Your task to perform on an android device: move an email to a new category in the gmail app Image 0: 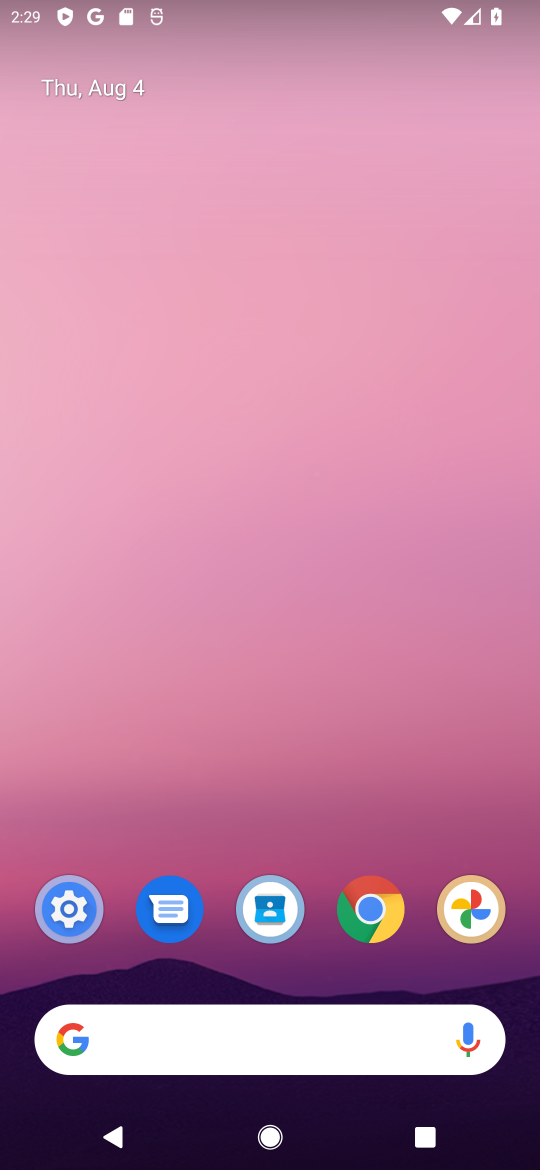
Step 0: drag from (259, 1012) to (460, 36)
Your task to perform on an android device: move an email to a new category in the gmail app Image 1: 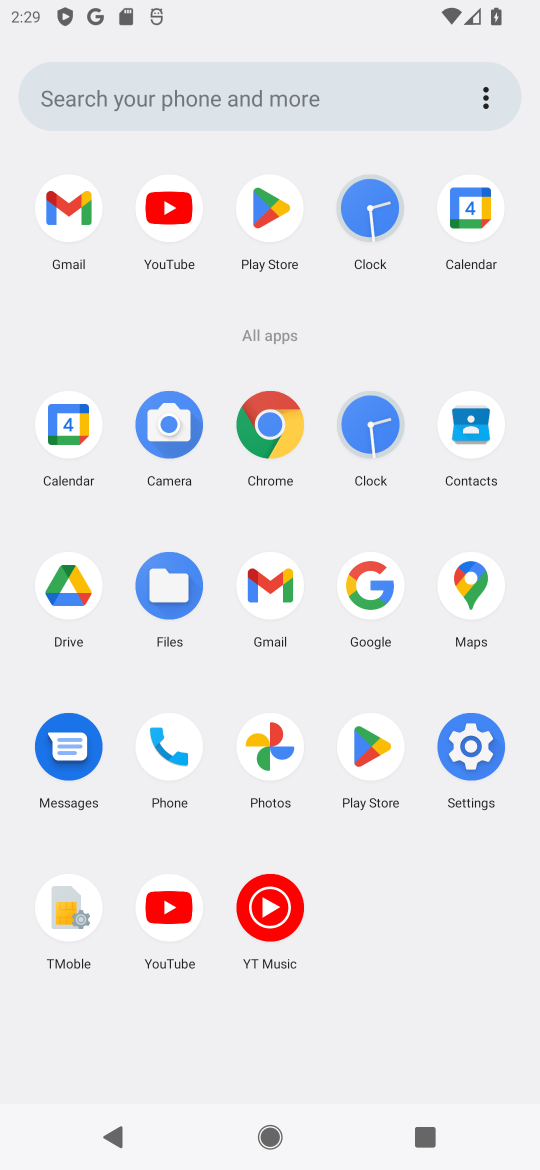
Step 1: click (69, 206)
Your task to perform on an android device: move an email to a new category in the gmail app Image 2: 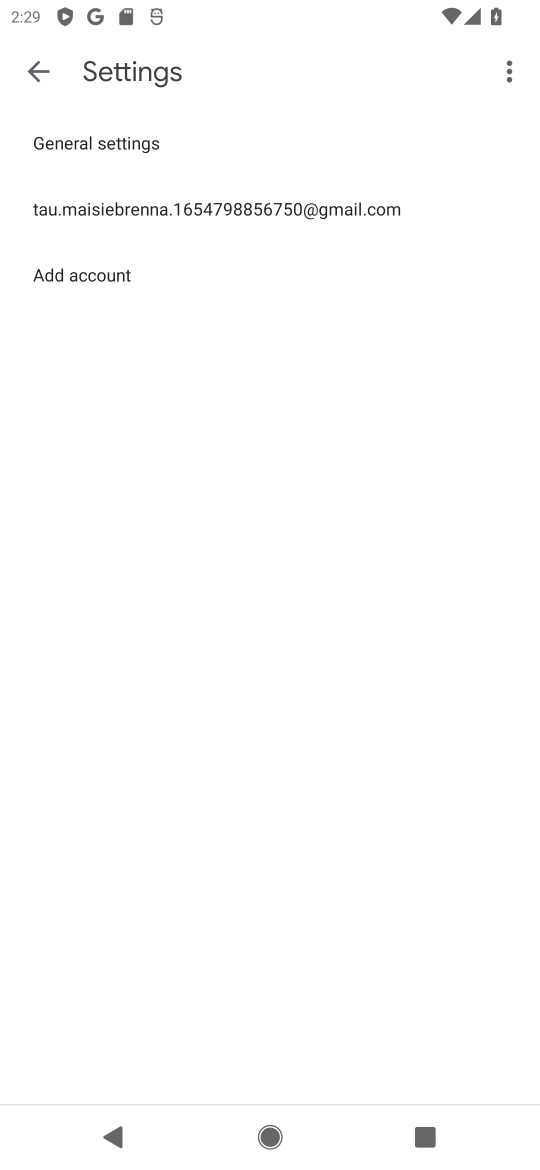
Step 2: click (38, 61)
Your task to perform on an android device: move an email to a new category in the gmail app Image 3: 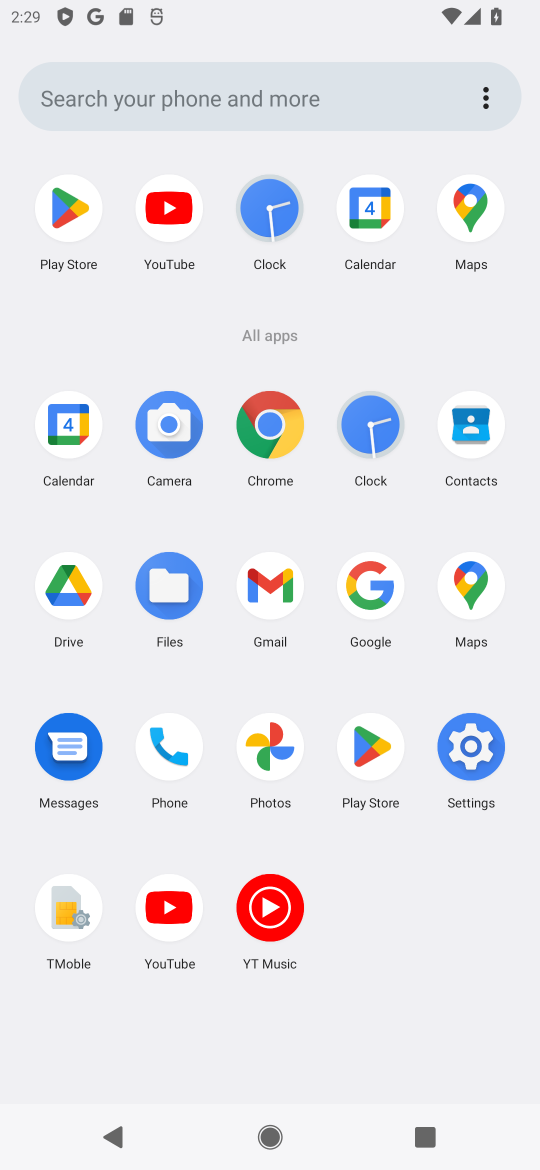
Step 3: click (265, 581)
Your task to perform on an android device: move an email to a new category in the gmail app Image 4: 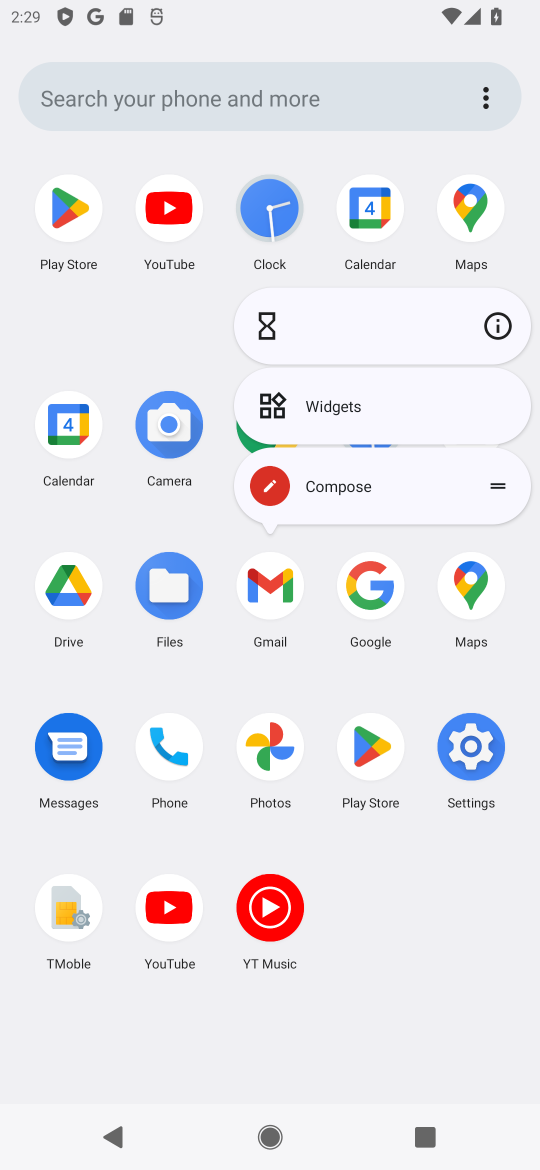
Step 4: click (261, 597)
Your task to perform on an android device: move an email to a new category in the gmail app Image 5: 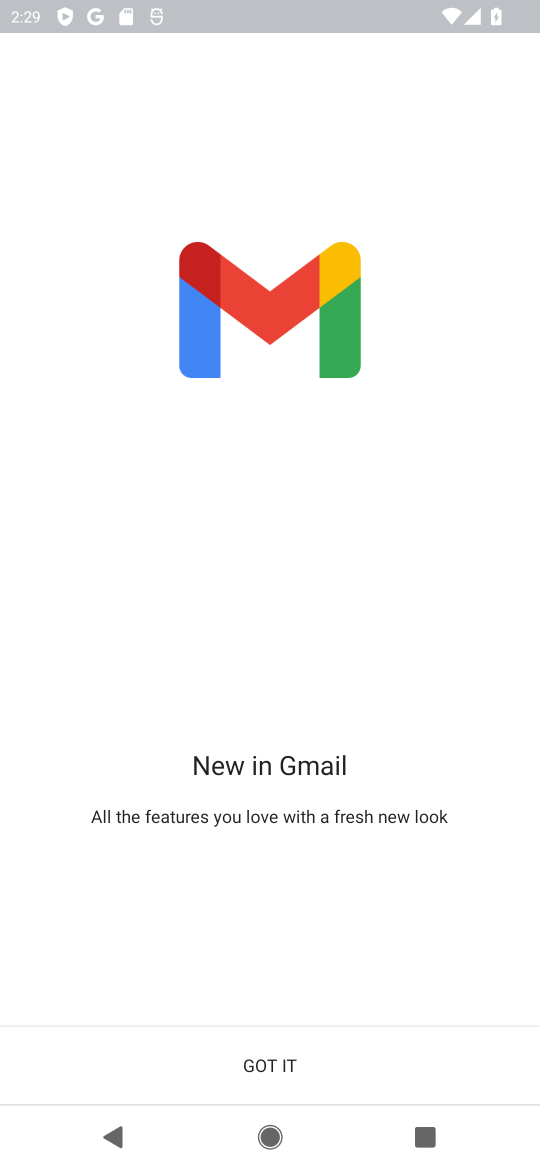
Step 5: click (265, 1067)
Your task to perform on an android device: move an email to a new category in the gmail app Image 6: 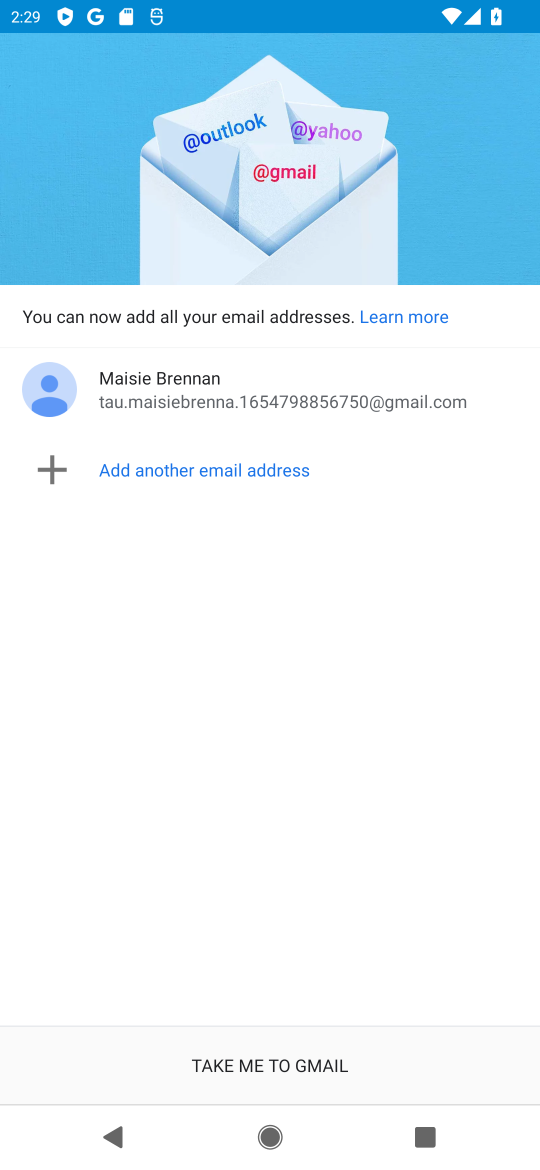
Step 6: click (276, 1056)
Your task to perform on an android device: move an email to a new category in the gmail app Image 7: 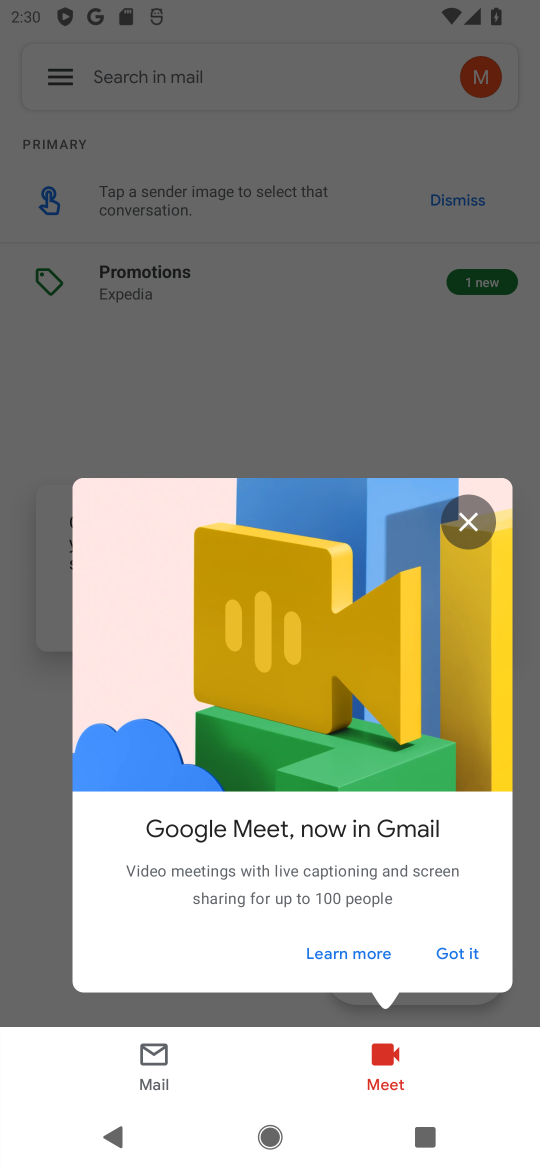
Step 7: click (477, 514)
Your task to perform on an android device: move an email to a new category in the gmail app Image 8: 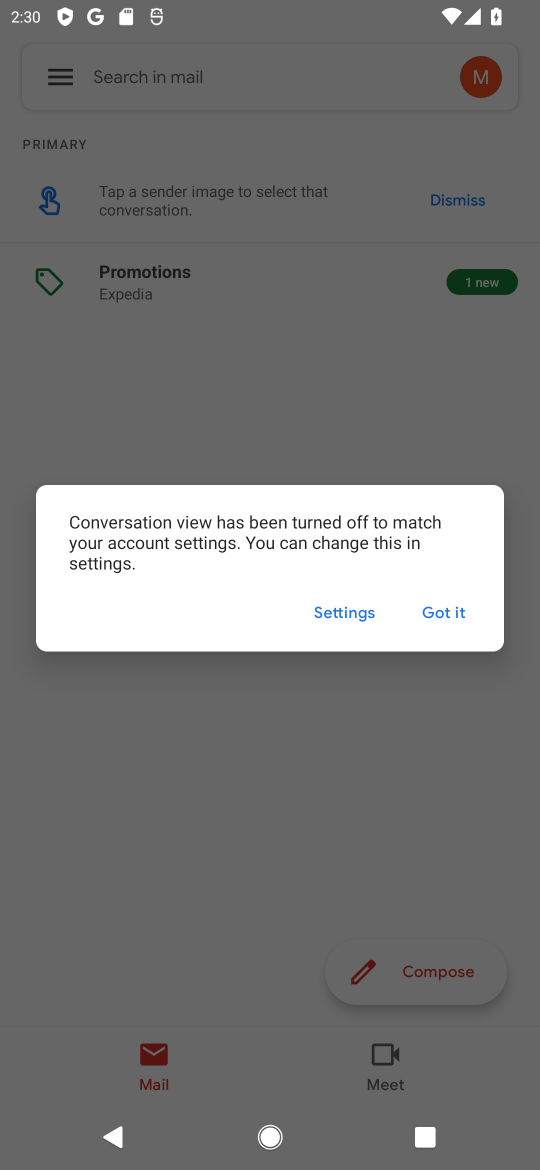
Step 8: click (429, 612)
Your task to perform on an android device: move an email to a new category in the gmail app Image 9: 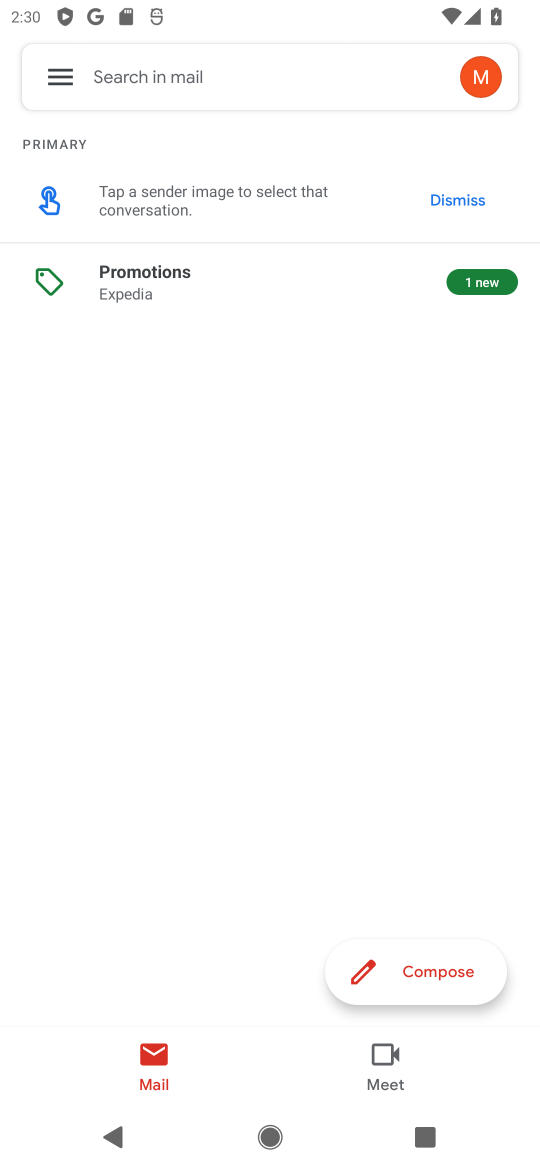
Step 9: click (64, 64)
Your task to perform on an android device: move an email to a new category in the gmail app Image 10: 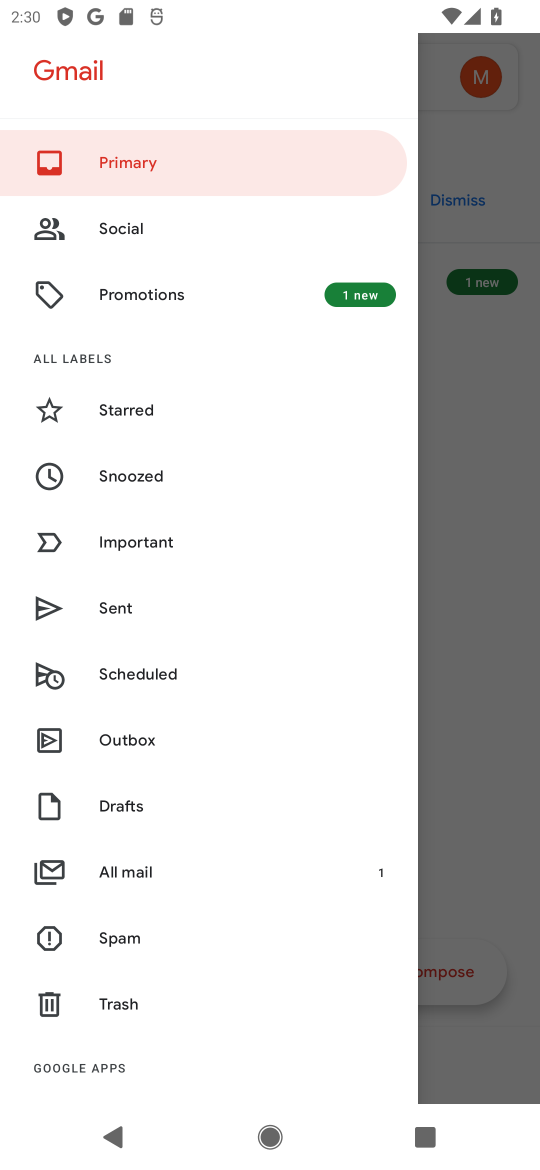
Step 10: click (244, 292)
Your task to perform on an android device: move an email to a new category in the gmail app Image 11: 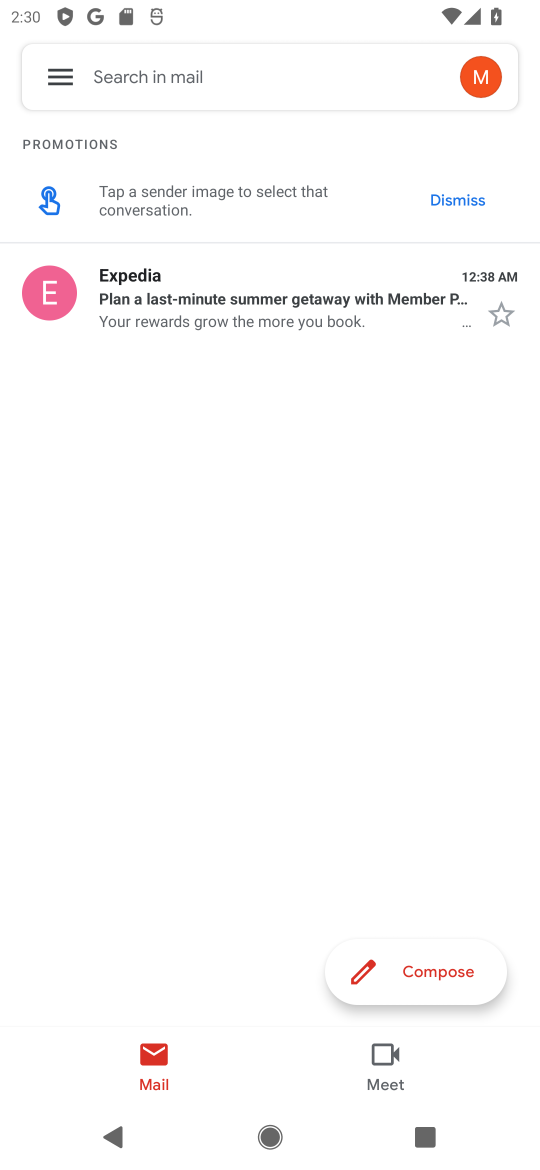
Step 11: click (58, 277)
Your task to perform on an android device: move an email to a new category in the gmail app Image 12: 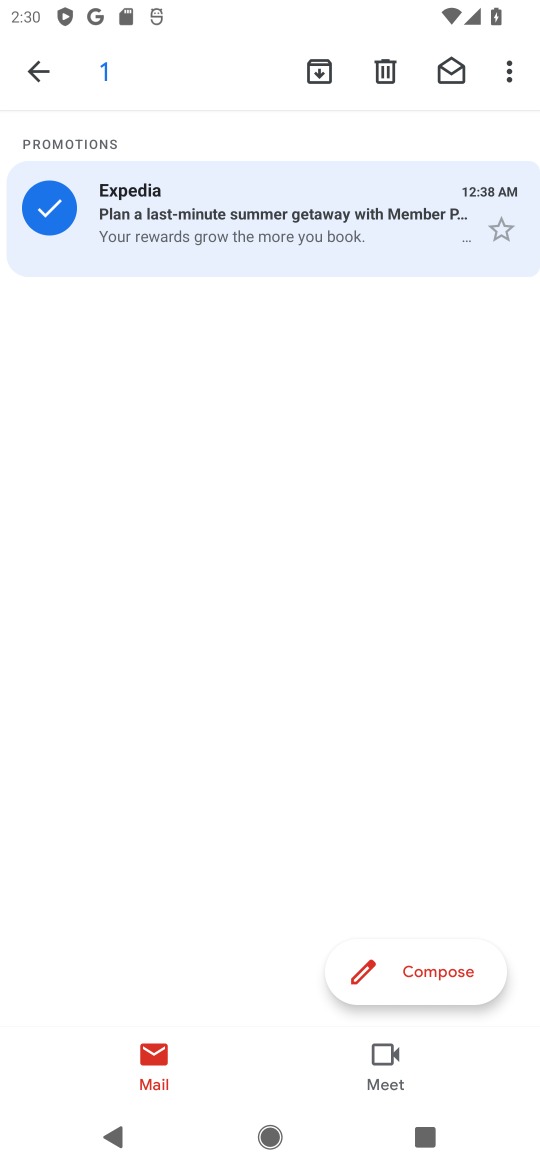
Step 12: click (512, 72)
Your task to perform on an android device: move an email to a new category in the gmail app Image 13: 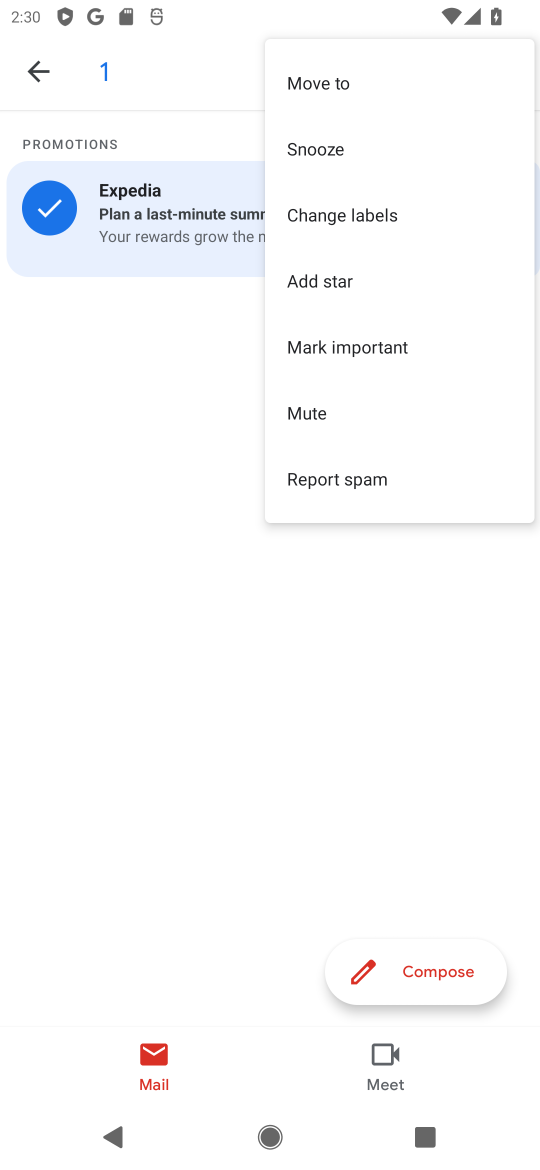
Step 13: click (375, 339)
Your task to perform on an android device: move an email to a new category in the gmail app Image 14: 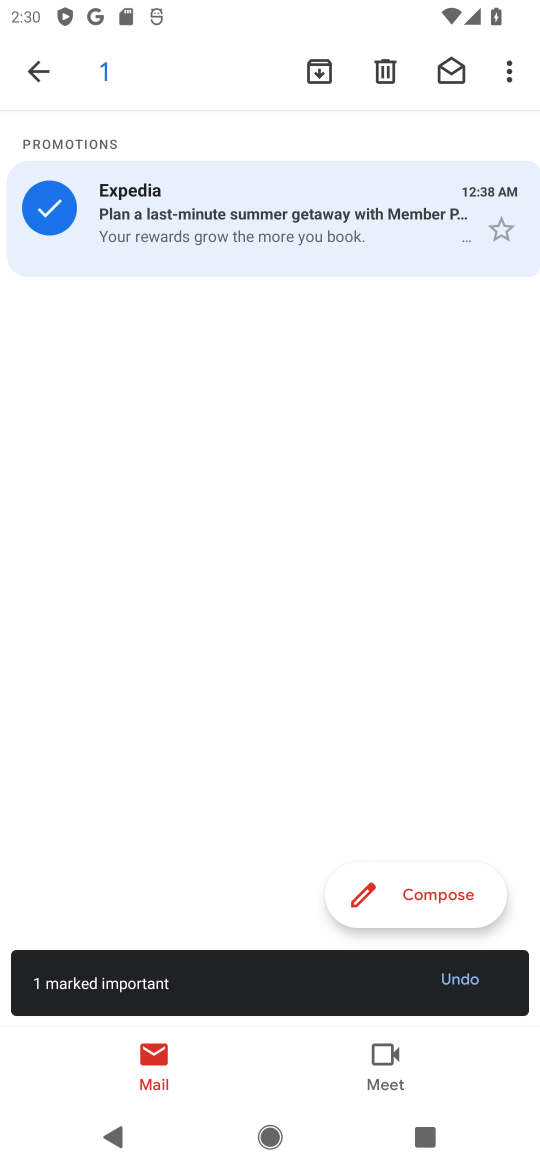
Step 14: task complete